Your task to perform on an android device: Open Google Chrome Image 0: 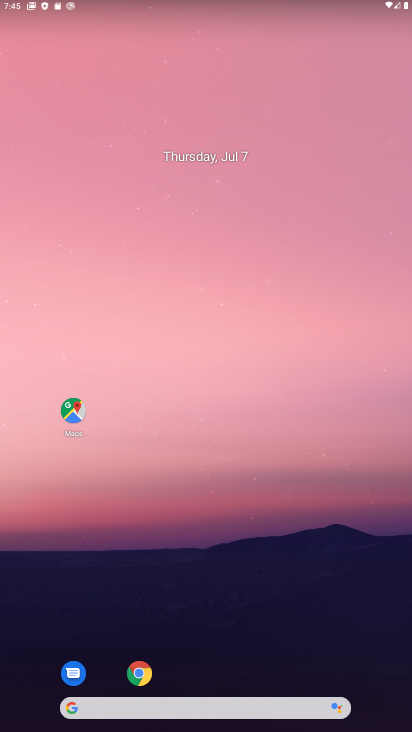
Step 0: click (152, 678)
Your task to perform on an android device: Open Google Chrome Image 1: 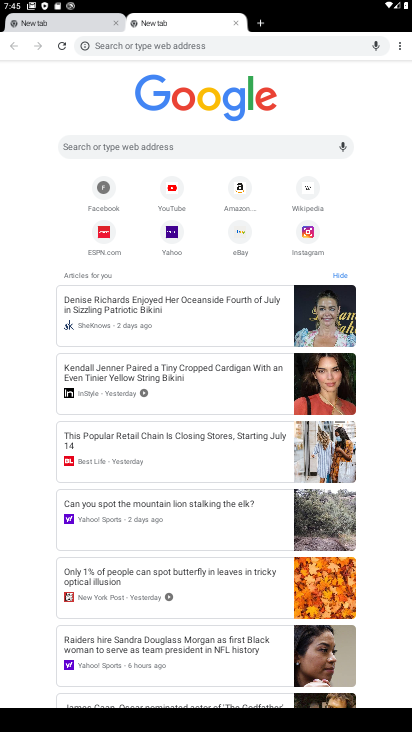
Step 1: task complete